Your task to perform on an android device: Toggle the flashlight Image 0: 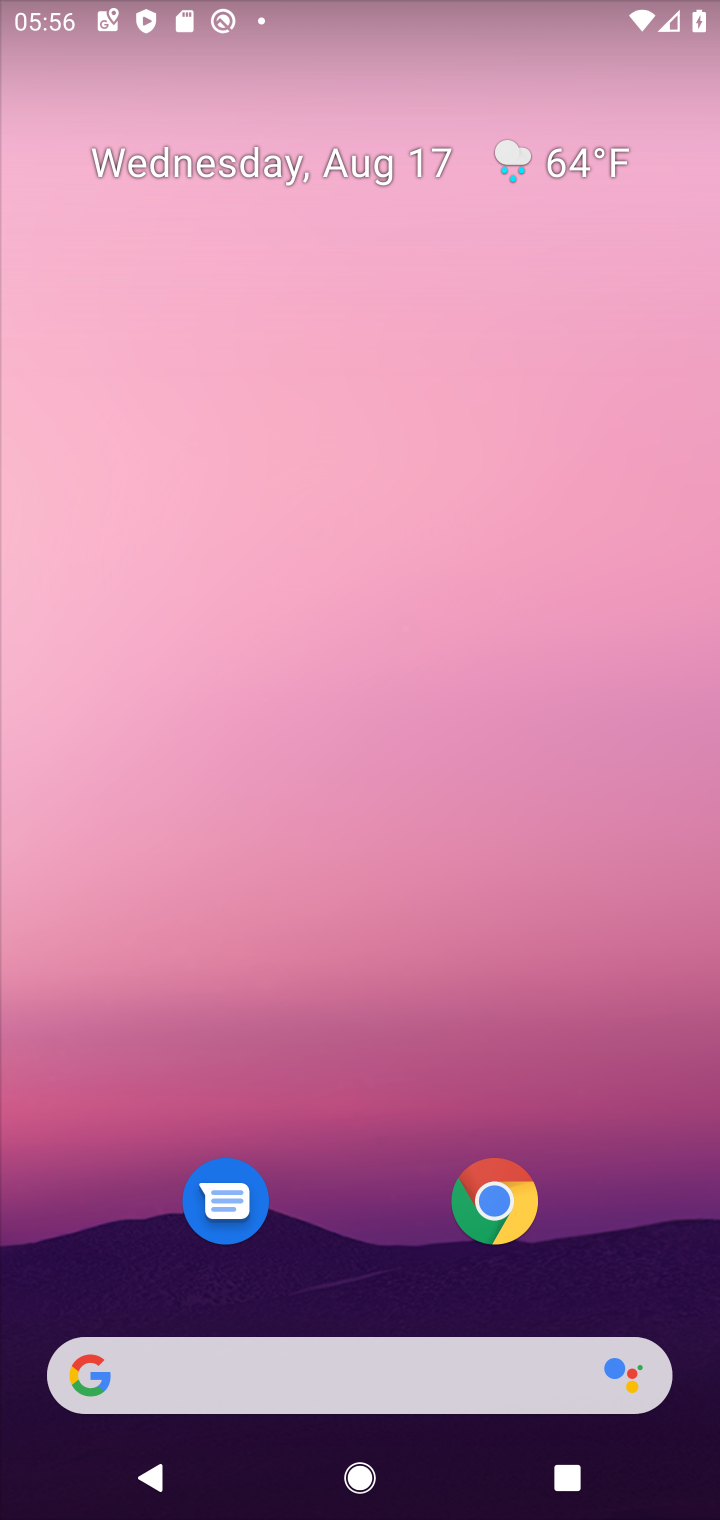
Step 0: press home button
Your task to perform on an android device: Toggle the flashlight Image 1: 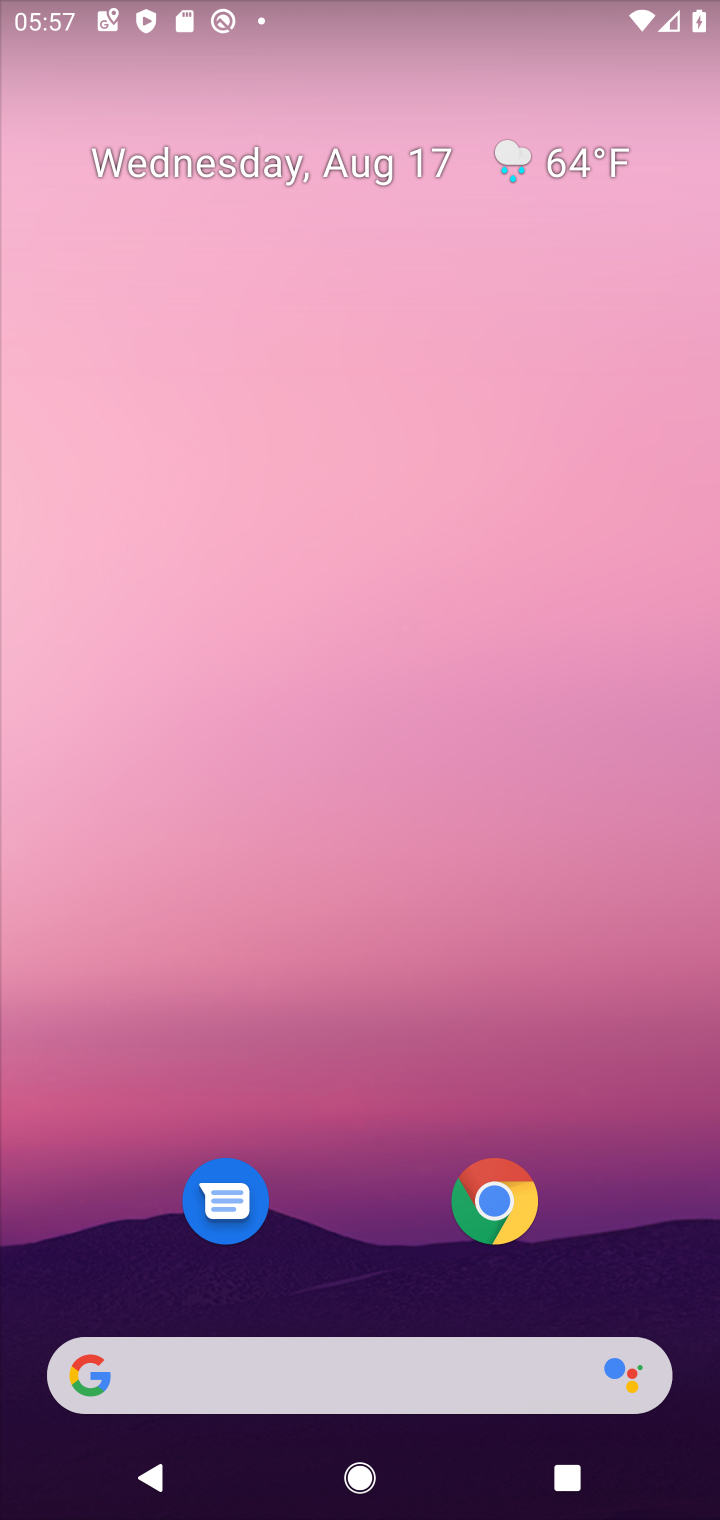
Step 1: task complete